Your task to perform on an android device: Go to network settings Image 0: 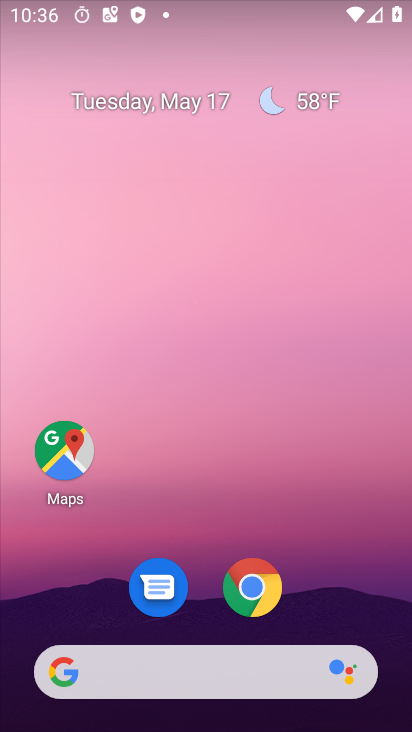
Step 0: drag from (350, 615) to (268, 216)
Your task to perform on an android device: Go to network settings Image 1: 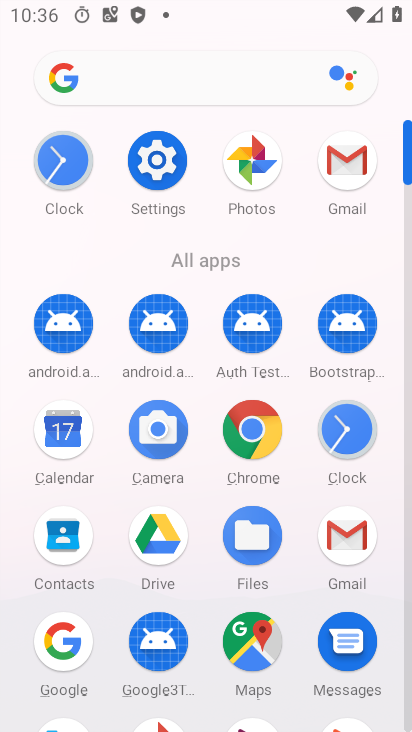
Step 1: click (158, 159)
Your task to perform on an android device: Go to network settings Image 2: 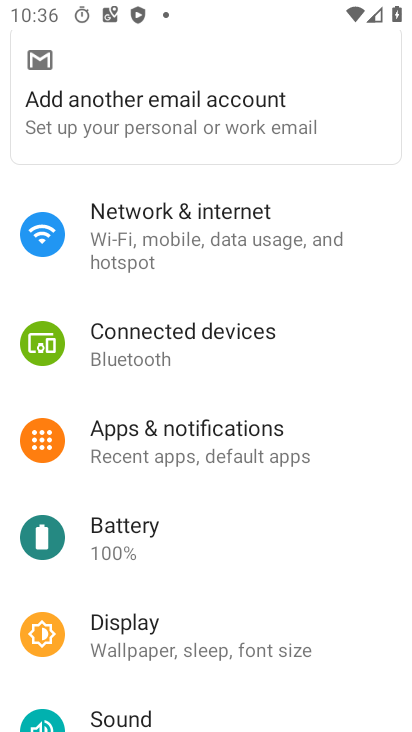
Step 2: click (158, 212)
Your task to perform on an android device: Go to network settings Image 3: 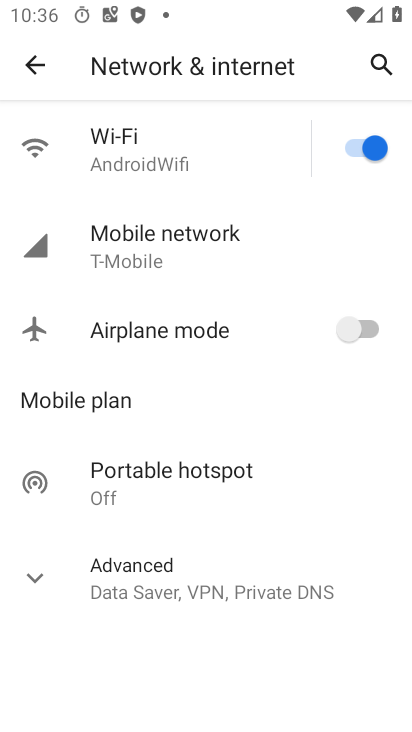
Step 3: click (115, 242)
Your task to perform on an android device: Go to network settings Image 4: 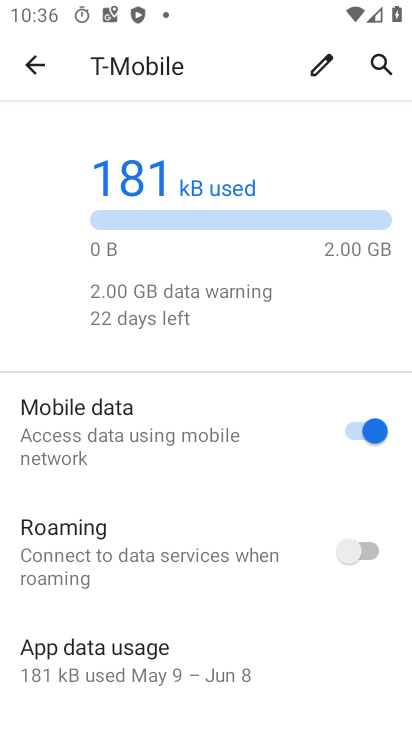
Step 4: task complete